Your task to perform on an android device: toggle show notifications on the lock screen Image 0: 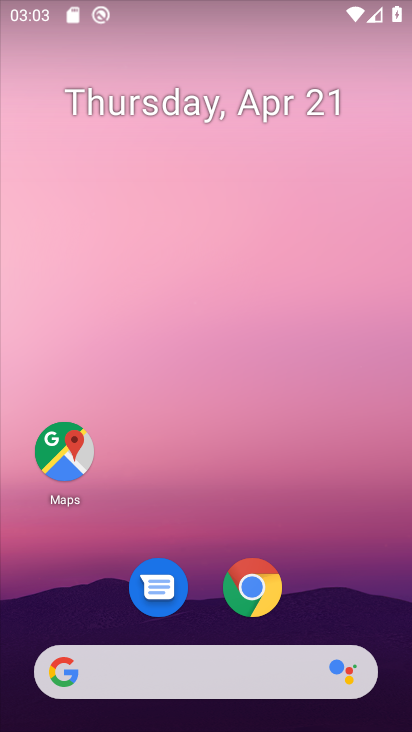
Step 0: drag from (328, 595) to (336, 118)
Your task to perform on an android device: toggle show notifications on the lock screen Image 1: 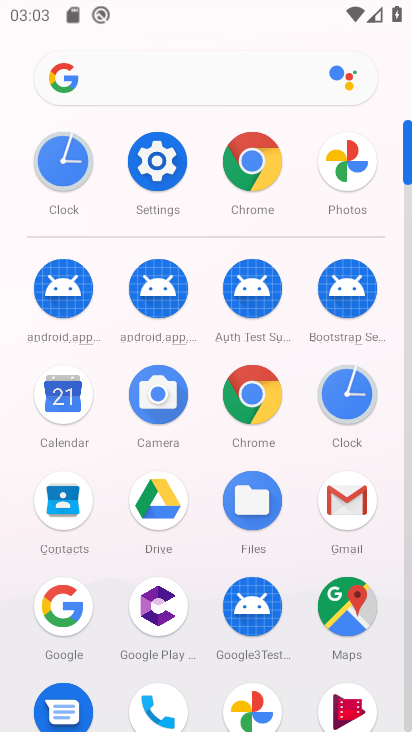
Step 1: click (149, 168)
Your task to perform on an android device: toggle show notifications on the lock screen Image 2: 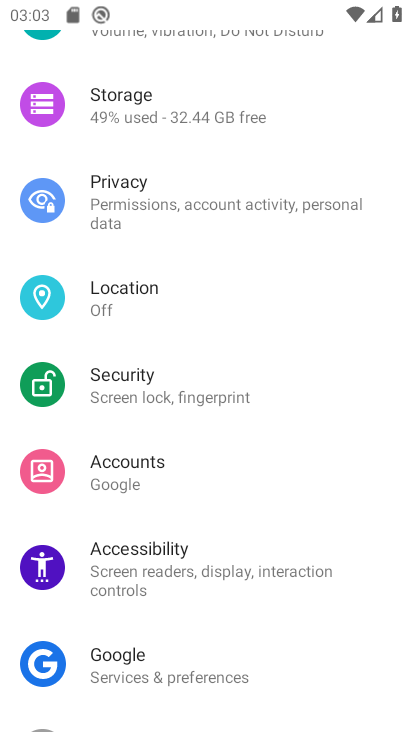
Step 2: drag from (352, 353) to (355, 435)
Your task to perform on an android device: toggle show notifications on the lock screen Image 3: 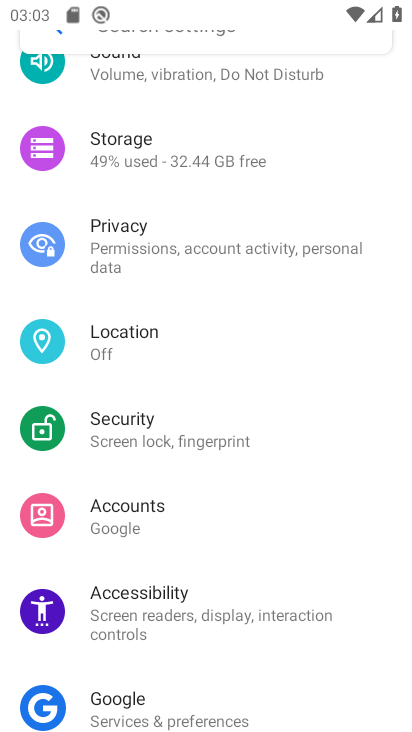
Step 3: drag from (354, 338) to (356, 462)
Your task to perform on an android device: toggle show notifications on the lock screen Image 4: 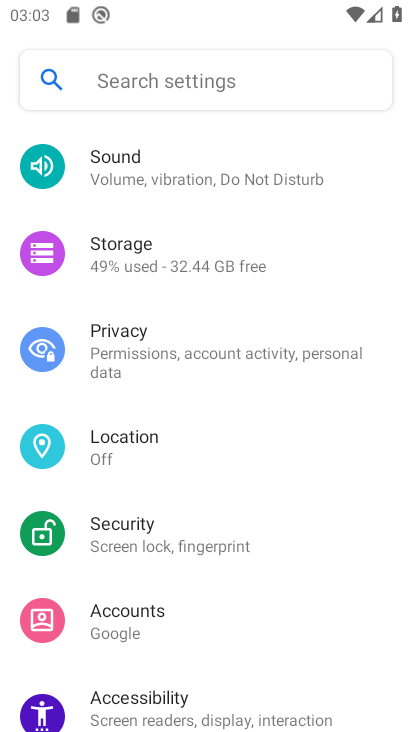
Step 4: drag from (382, 296) to (380, 430)
Your task to perform on an android device: toggle show notifications on the lock screen Image 5: 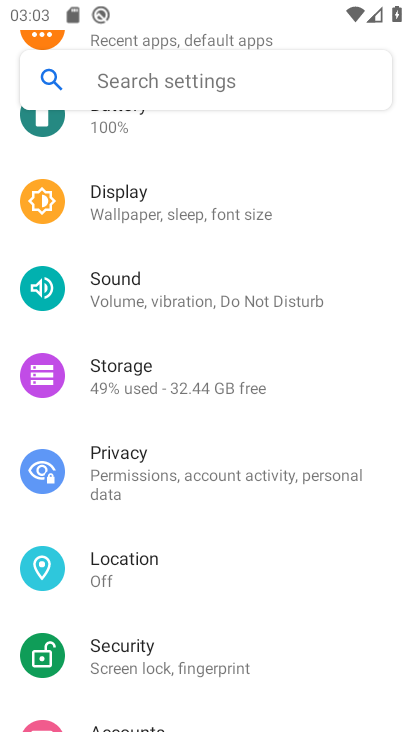
Step 5: drag from (377, 350) to (377, 440)
Your task to perform on an android device: toggle show notifications on the lock screen Image 6: 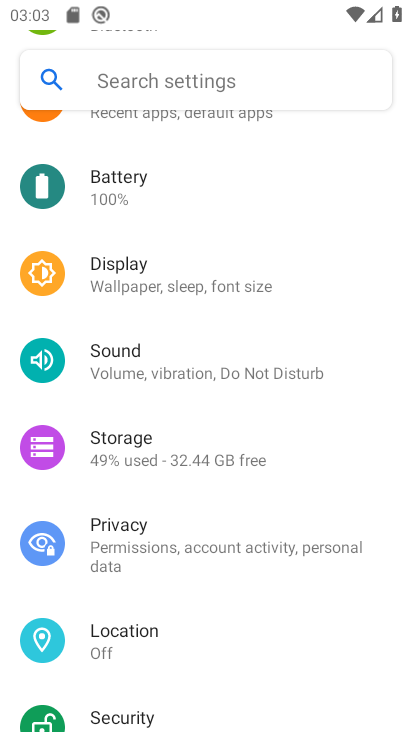
Step 6: drag from (374, 284) to (372, 427)
Your task to perform on an android device: toggle show notifications on the lock screen Image 7: 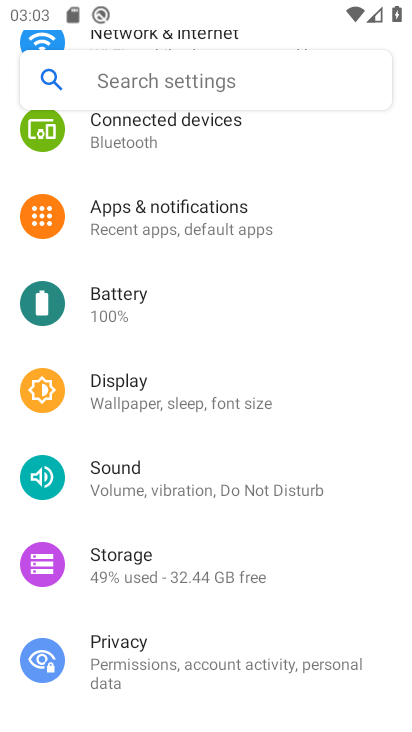
Step 7: drag from (361, 292) to (352, 424)
Your task to perform on an android device: toggle show notifications on the lock screen Image 8: 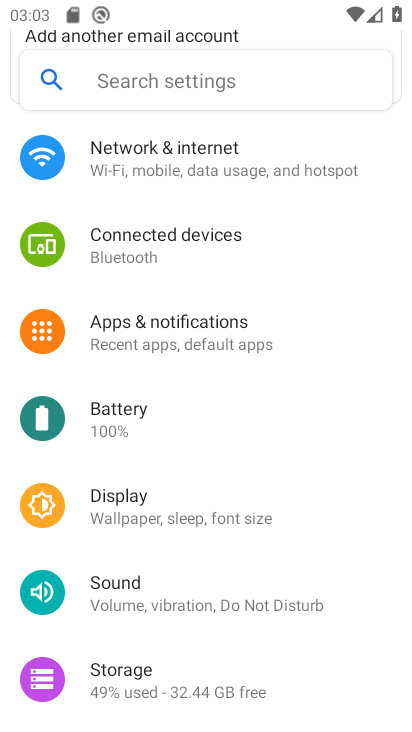
Step 8: drag from (334, 279) to (334, 381)
Your task to perform on an android device: toggle show notifications on the lock screen Image 9: 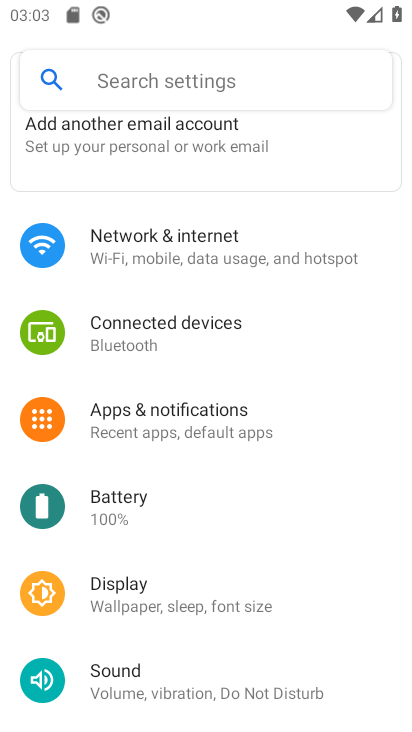
Step 9: click (236, 443)
Your task to perform on an android device: toggle show notifications on the lock screen Image 10: 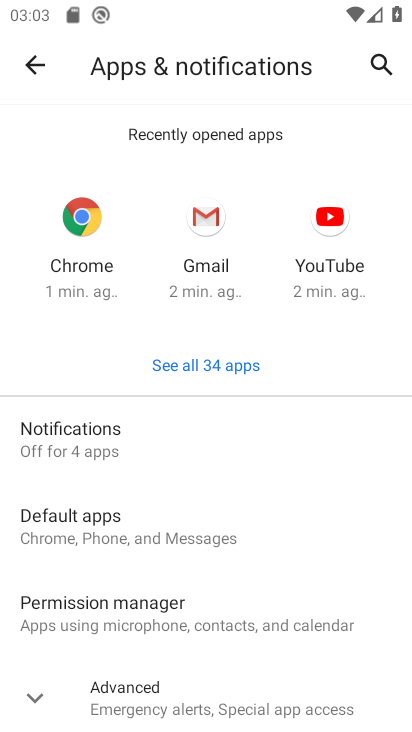
Step 10: drag from (285, 513) to (285, 401)
Your task to perform on an android device: toggle show notifications on the lock screen Image 11: 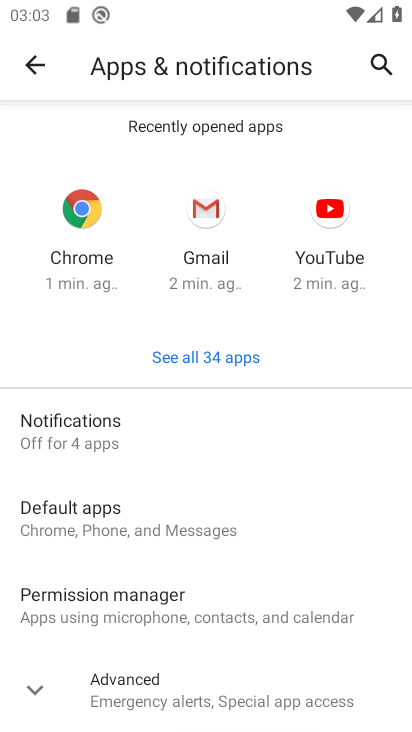
Step 11: click (127, 419)
Your task to perform on an android device: toggle show notifications on the lock screen Image 12: 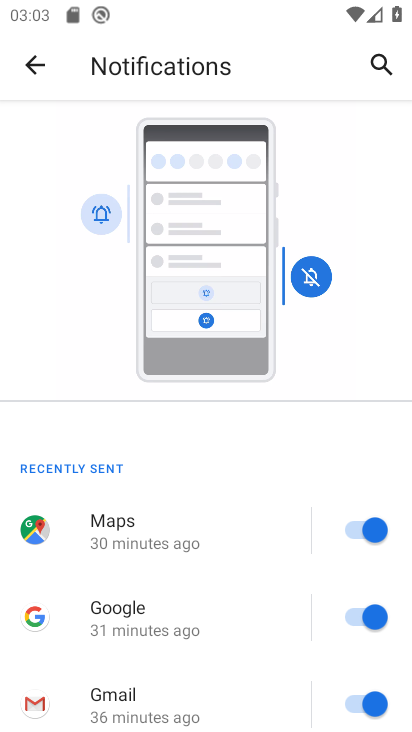
Step 12: drag from (271, 570) to (246, 413)
Your task to perform on an android device: toggle show notifications on the lock screen Image 13: 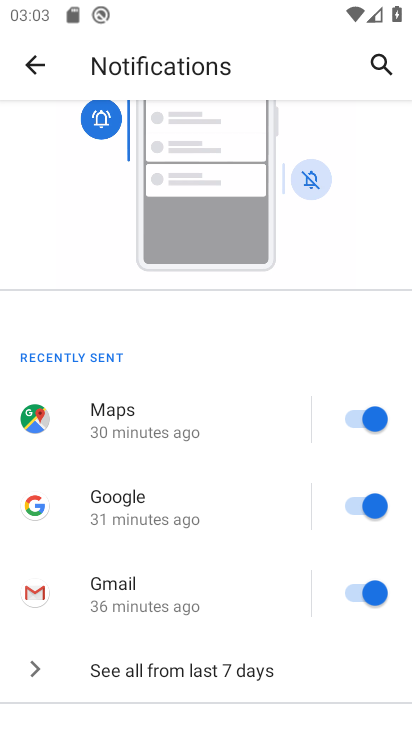
Step 13: drag from (264, 608) to (265, 392)
Your task to perform on an android device: toggle show notifications on the lock screen Image 14: 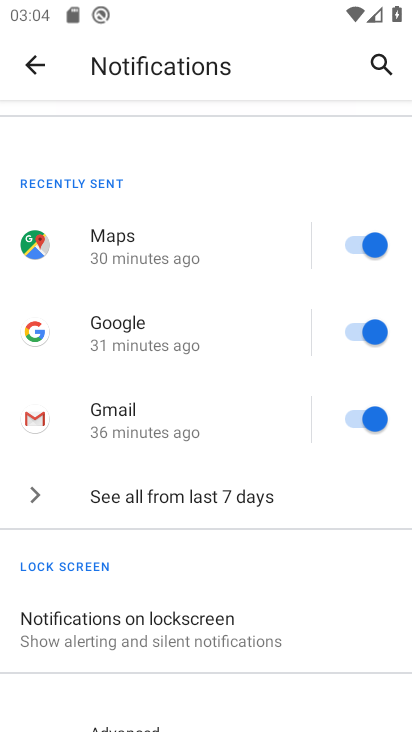
Step 14: drag from (269, 557) to (260, 360)
Your task to perform on an android device: toggle show notifications on the lock screen Image 15: 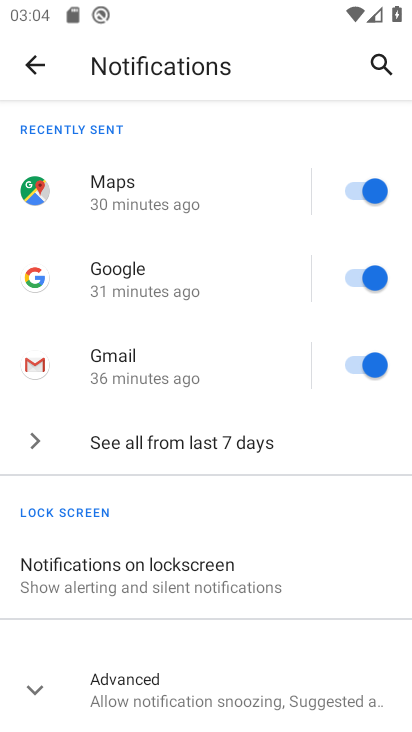
Step 15: click (181, 574)
Your task to perform on an android device: toggle show notifications on the lock screen Image 16: 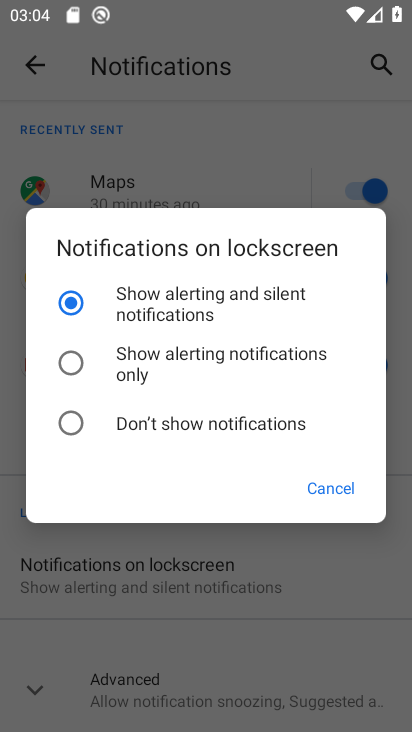
Step 16: click (165, 367)
Your task to perform on an android device: toggle show notifications on the lock screen Image 17: 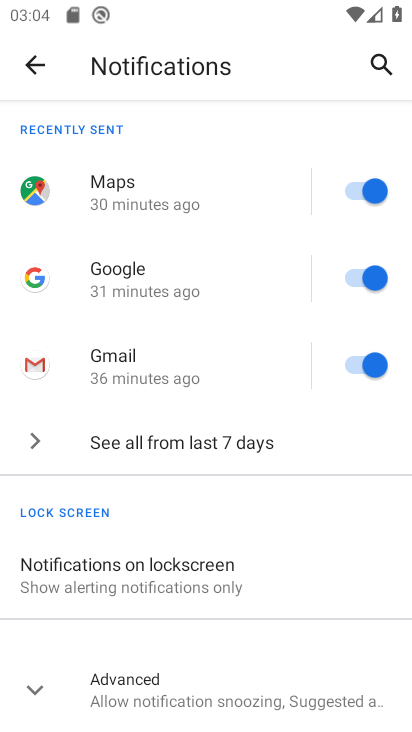
Step 17: task complete